Your task to perform on an android device: show emergency info Image 0: 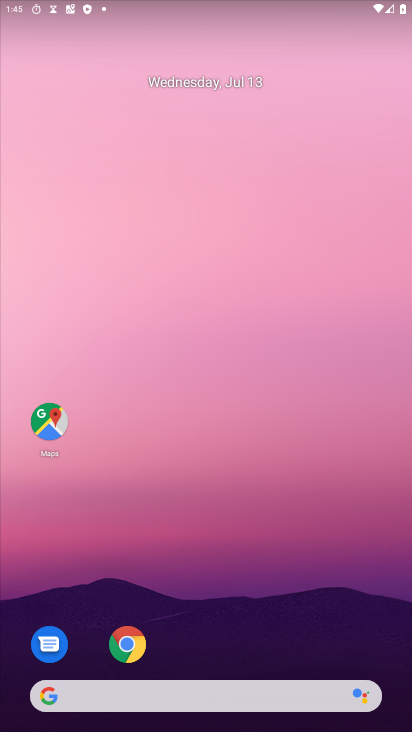
Step 0: press home button
Your task to perform on an android device: show emergency info Image 1: 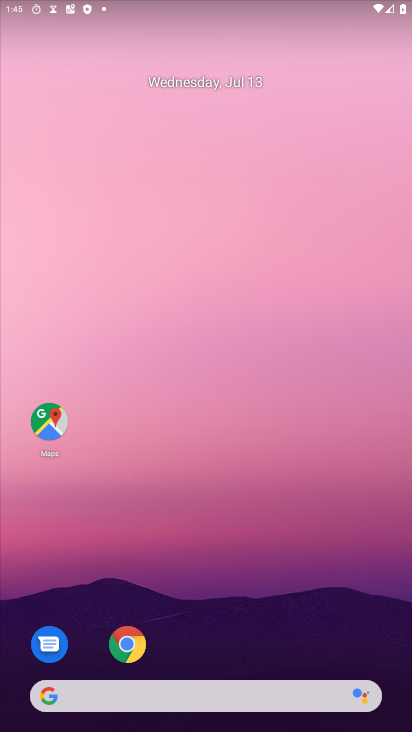
Step 1: drag from (304, 631) to (219, 105)
Your task to perform on an android device: show emergency info Image 2: 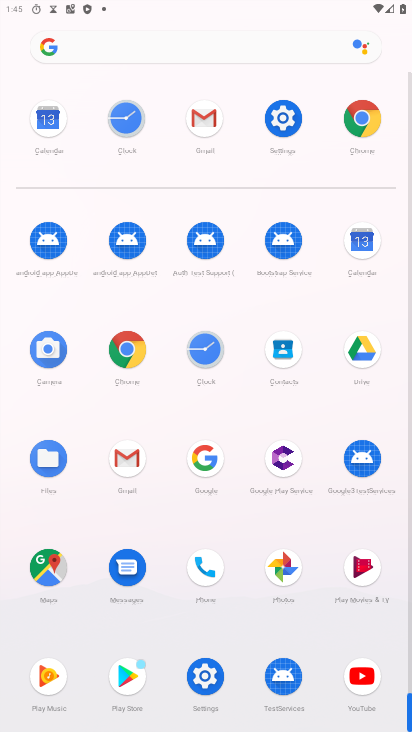
Step 2: click (283, 115)
Your task to perform on an android device: show emergency info Image 3: 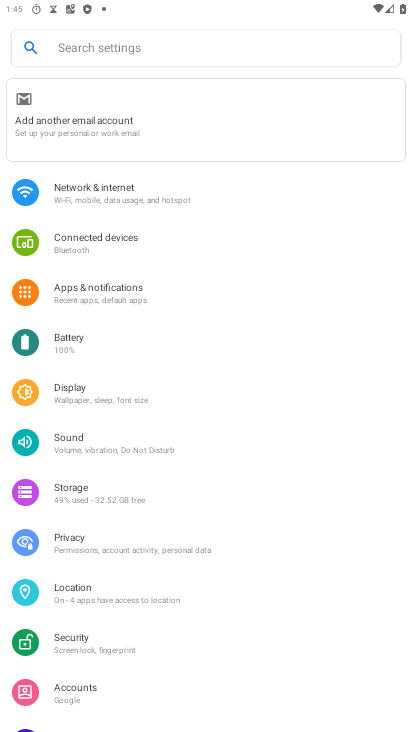
Step 3: drag from (187, 679) to (169, 55)
Your task to perform on an android device: show emergency info Image 4: 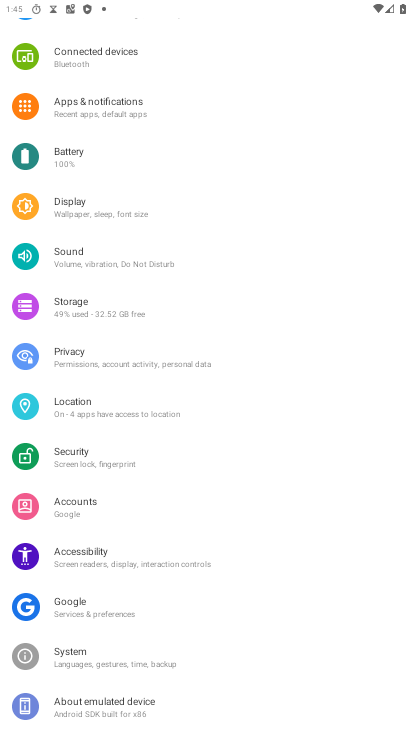
Step 4: click (153, 709)
Your task to perform on an android device: show emergency info Image 5: 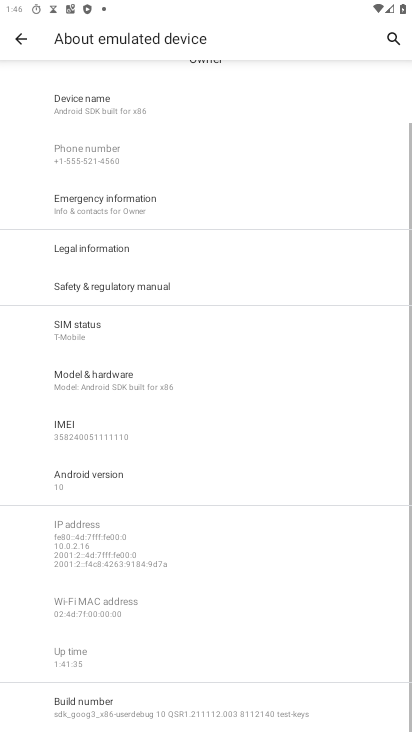
Step 5: click (86, 195)
Your task to perform on an android device: show emergency info Image 6: 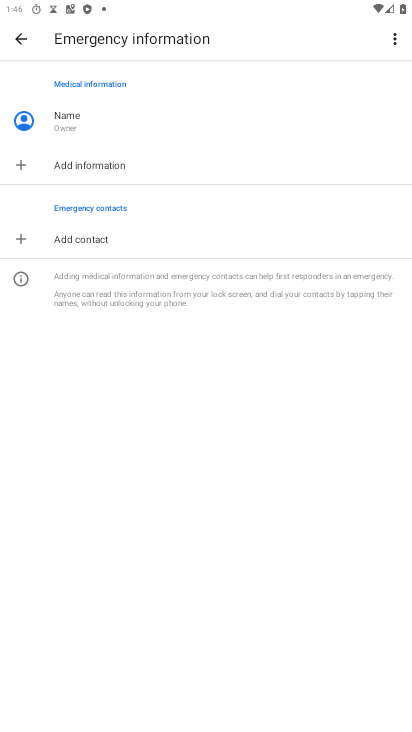
Step 6: task complete